Your task to perform on an android device: Go to eBay Image 0: 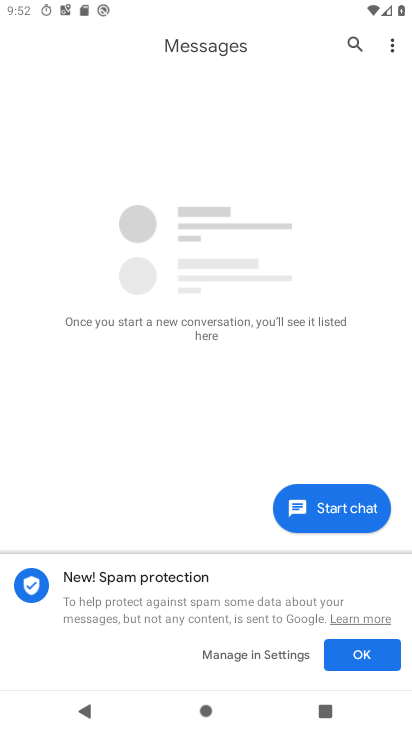
Step 0: press home button
Your task to perform on an android device: Go to eBay Image 1: 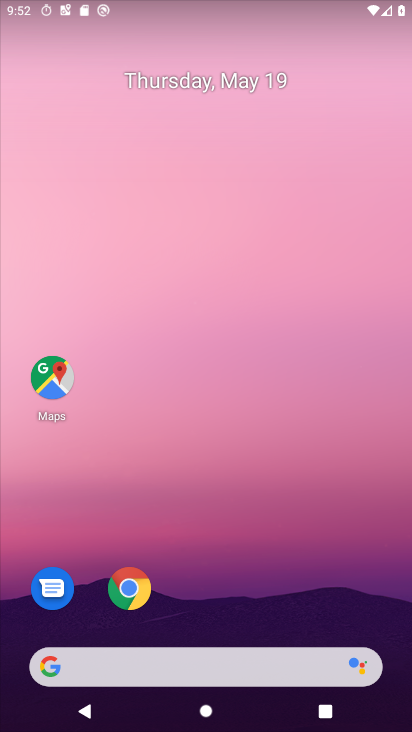
Step 1: click (135, 586)
Your task to perform on an android device: Go to eBay Image 2: 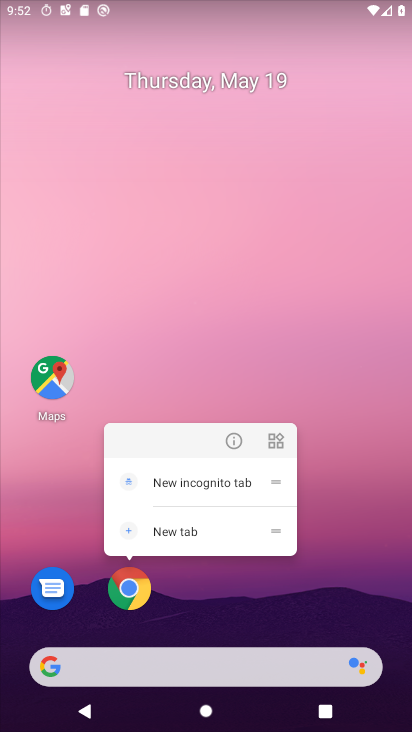
Step 2: click (136, 592)
Your task to perform on an android device: Go to eBay Image 3: 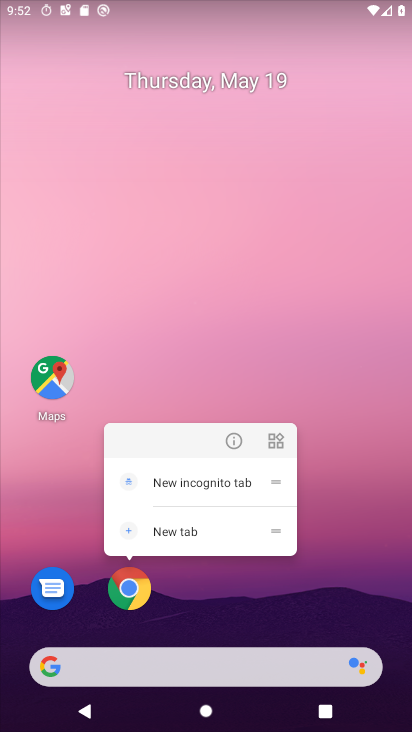
Step 3: click (136, 592)
Your task to perform on an android device: Go to eBay Image 4: 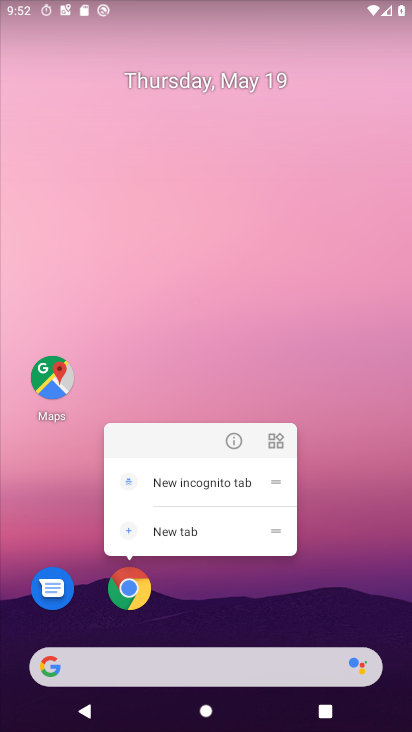
Step 4: click (127, 598)
Your task to perform on an android device: Go to eBay Image 5: 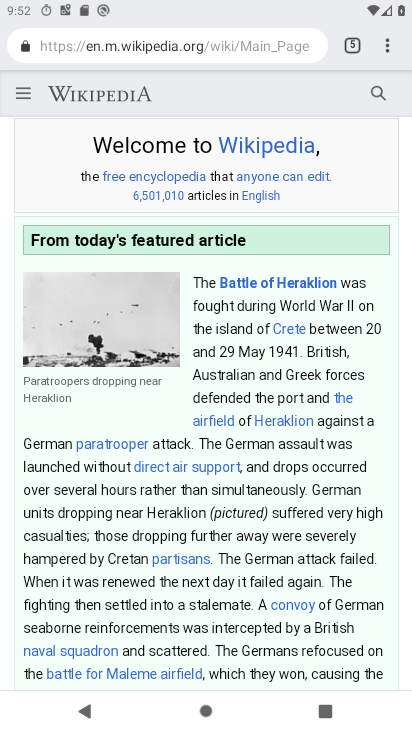
Step 5: drag from (386, 51) to (329, 92)
Your task to perform on an android device: Go to eBay Image 6: 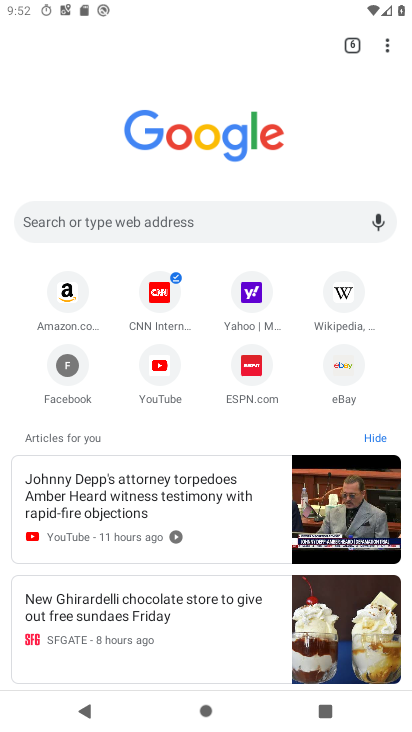
Step 6: click (349, 376)
Your task to perform on an android device: Go to eBay Image 7: 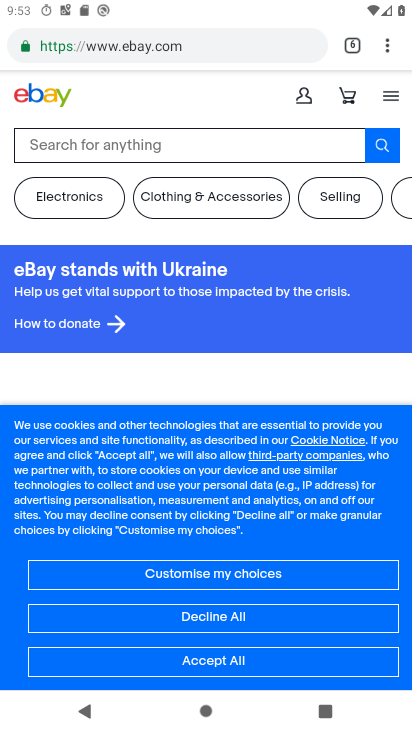
Step 7: task complete